Your task to perform on an android device: check out phone information Image 0: 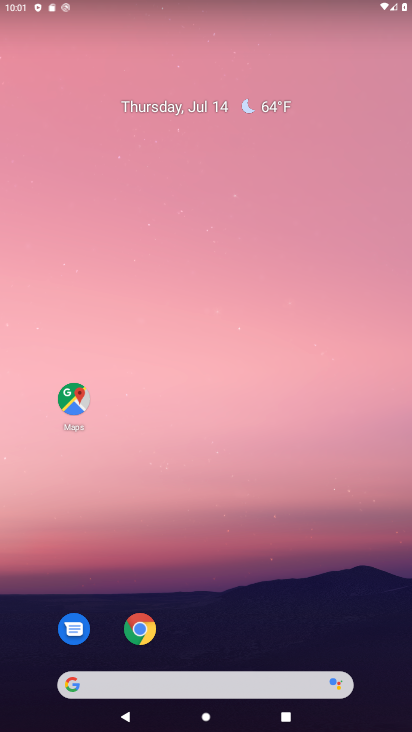
Step 0: drag from (234, 658) to (319, 184)
Your task to perform on an android device: check out phone information Image 1: 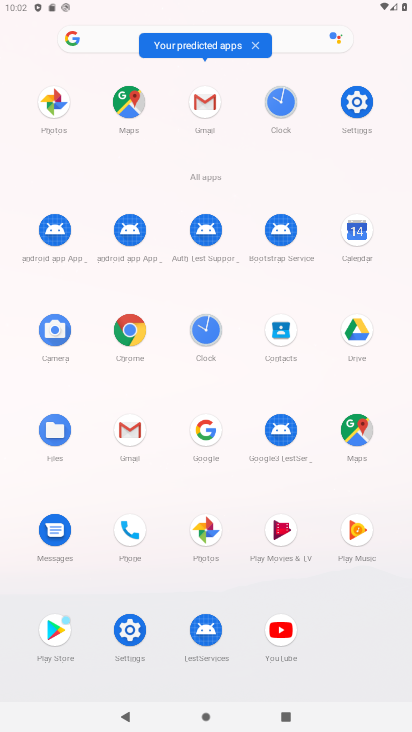
Step 1: click (126, 640)
Your task to perform on an android device: check out phone information Image 2: 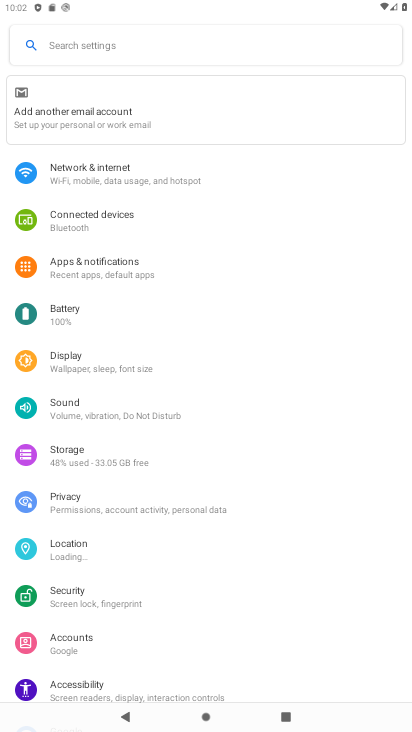
Step 2: drag from (155, 649) to (263, 252)
Your task to perform on an android device: check out phone information Image 3: 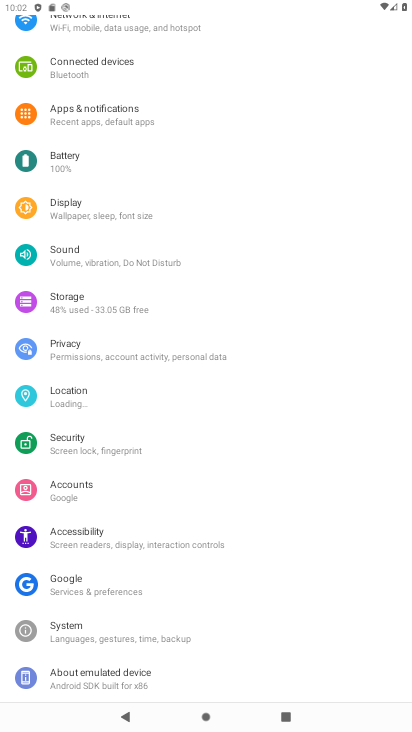
Step 3: click (159, 680)
Your task to perform on an android device: check out phone information Image 4: 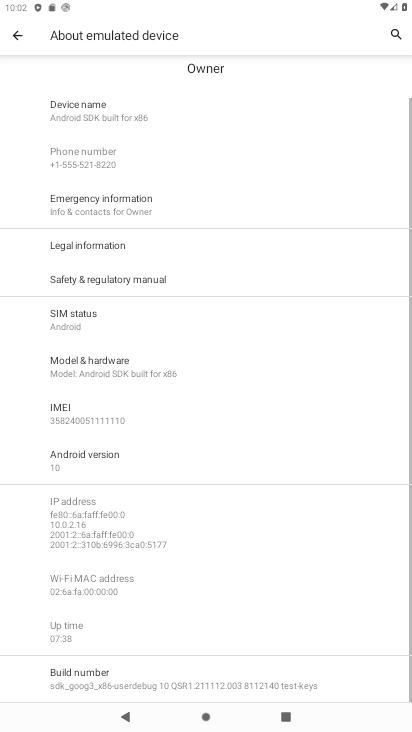
Step 4: task complete